Your task to perform on an android device: add a label to a message in the gmail app Image 0: 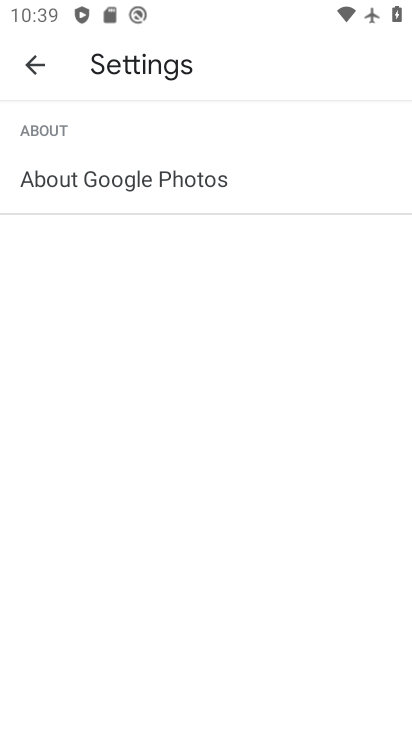
Step 0: press back button
Your task to perform on an android device: add a label to a message in the gmail app Image 1: 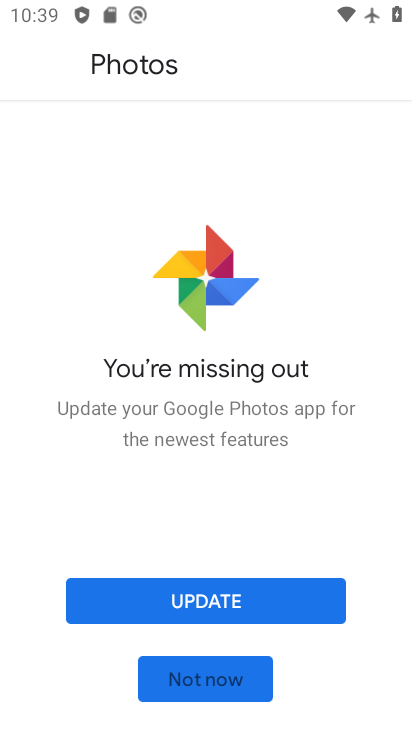
Step 1: press back button
Your task to perform on an android device: add a label to a message in the gmail app Image 2: 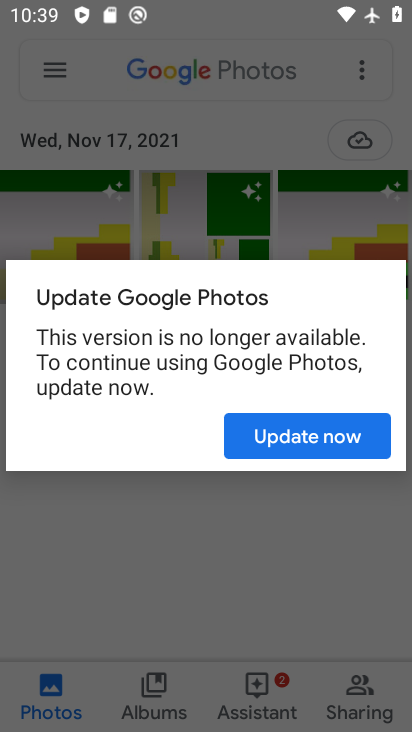
Step 2: press home button
Your task to perform on an android device: add a label to a message in the gmail app Image 3: 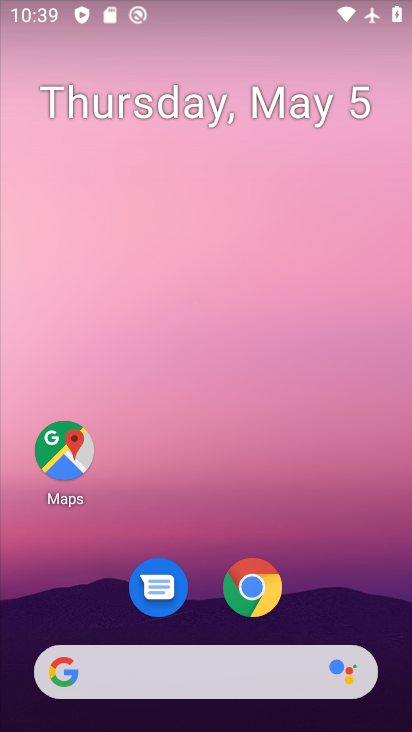
Step 3: drag from (330, 564) to (250, 16)
Your task to perform on an android device: add a label to a message in the gmail app Image 4: 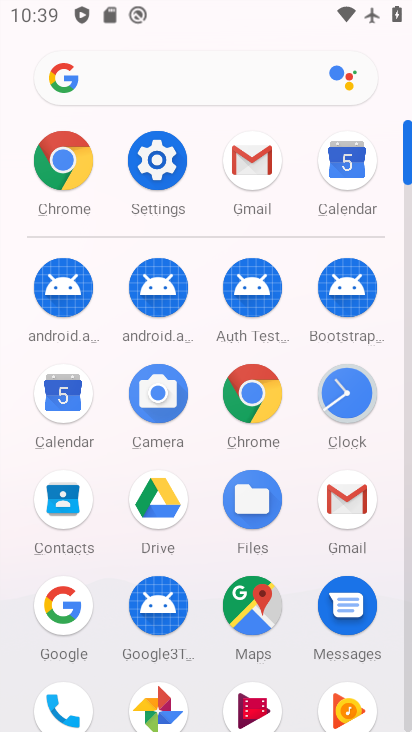
Step 4: click (250, 157)
Your task to perform on an android device: add a label to a message in the gmail app Image 5: 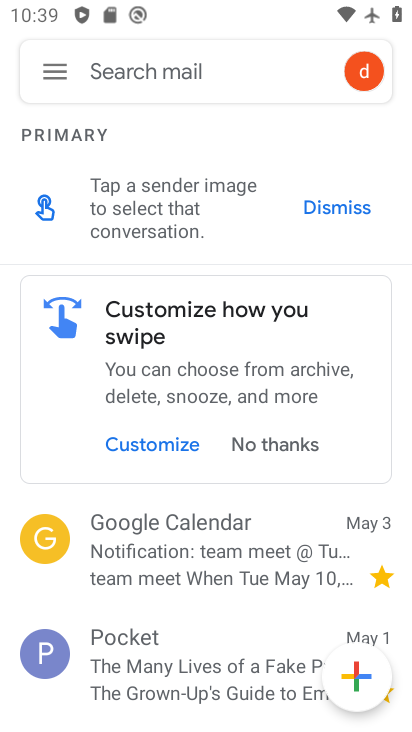
Step 5: click (176, 651)
Your task to perform on an android device: add a label to a message in the gmail app Image 6: 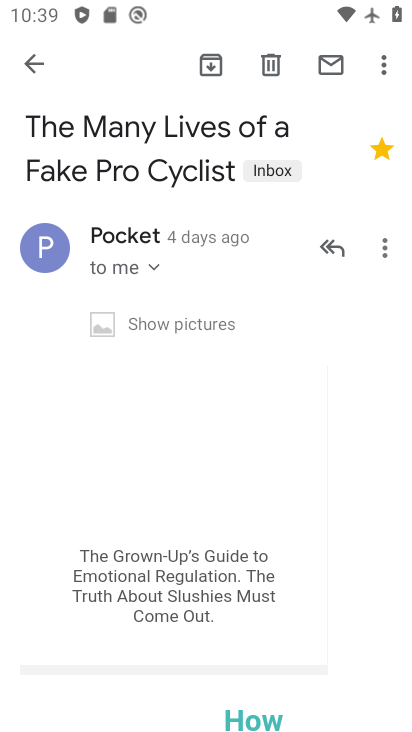
Step 6: drag from (378, 62) to (278, 201)
Your task to perform on an android device: add a label to a message in the gmail app Image 7: 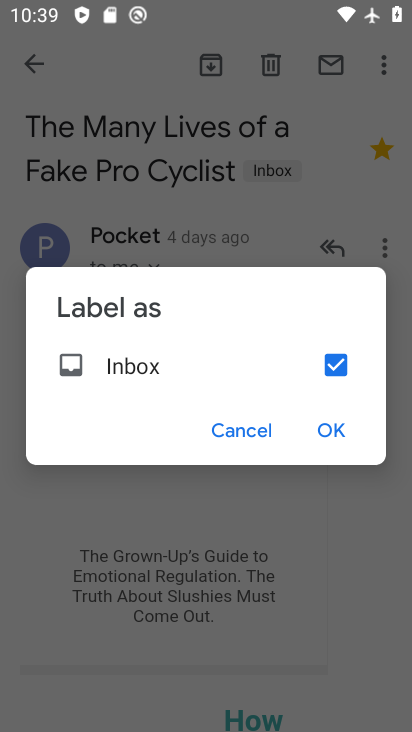
Step 7: click (335, 369)
Your task to perform on an android device: add a label to a message in the gmail app Image 8: 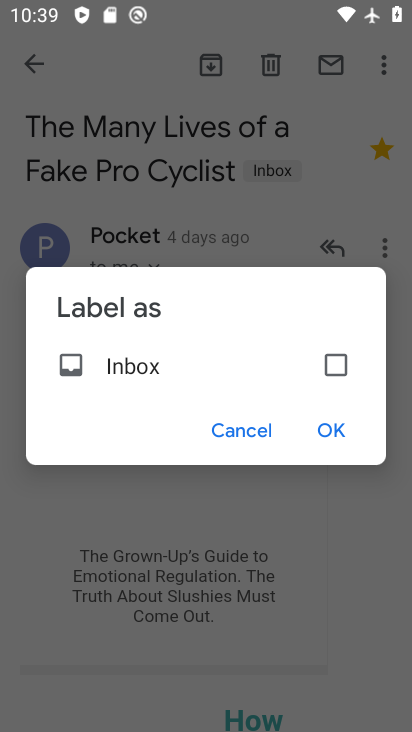
Step 8: click (334, 430)
Your task to perform on an android device: add a label to a message in the gmail app Image 9: 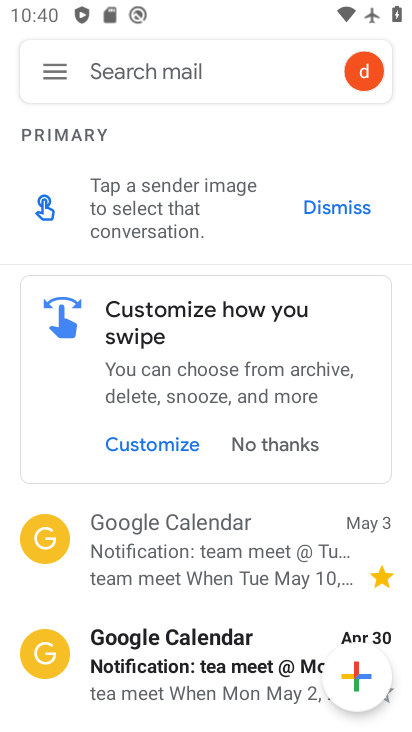
Step 9: task complete